Your task to perform on an android device: manage bookmarks in the chrome app Image 0: 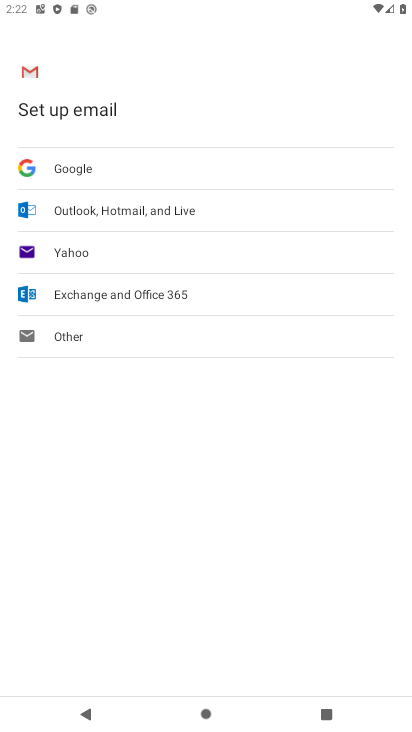
Step 0: press home button
Your task to perform on an android device: manage bookmarks in the chrome app Image 1: 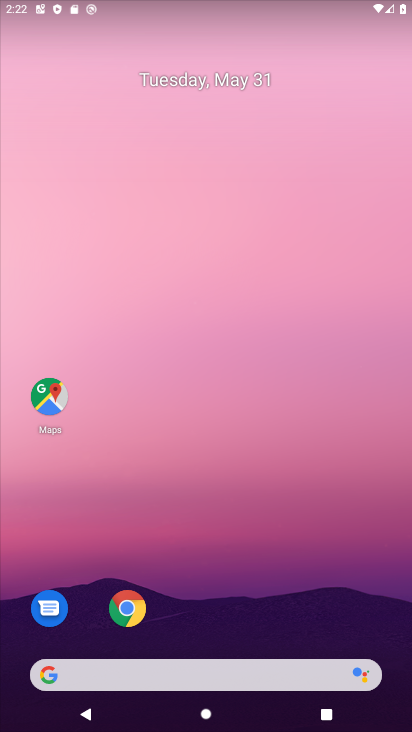
Step 1: click (143, 606)
Your task to perform on an android device: manage bookmarks in the chrome app Image 2: 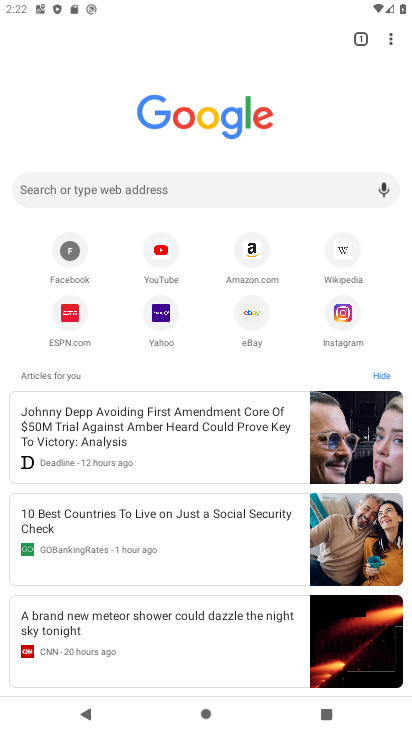
Step 2: click (394, 38)
Your task to perform on an android device: manage bookmarks in the chrome app Image 3: 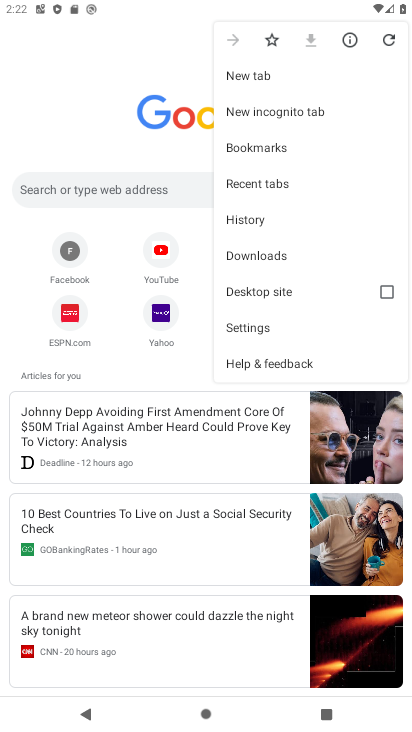
Step 3: click (259, 146)
Your task to perform on an android device: manage bookmarks in the chrome app Image 4: 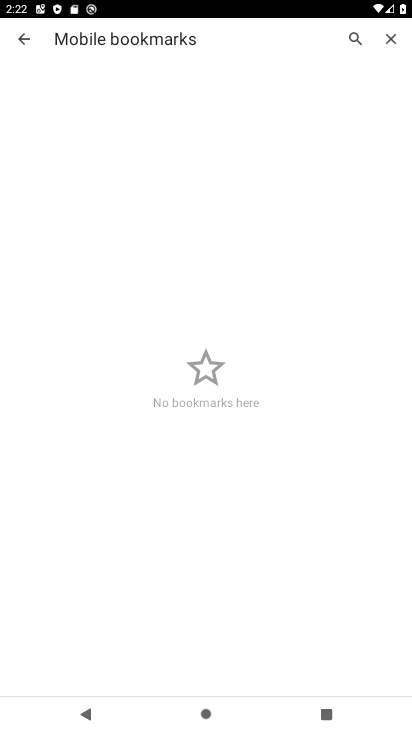
Step 4: task complete